Your task to perform on an android device: change the clock display to digital Image 0: 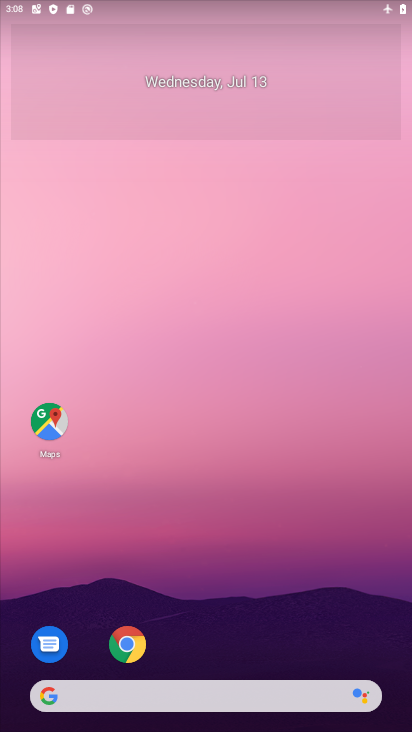
Step 0: drag from (329, 592) to (319, 40)
Your task to perform on an android device: change the clock display to digital Image 1: 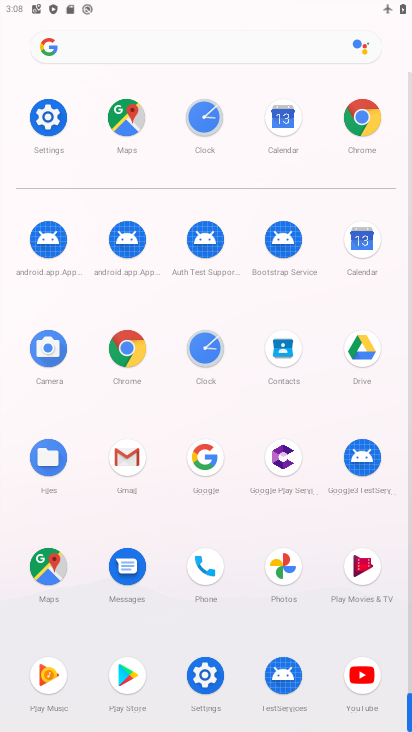
Step 1: click (207, 343)
Your task to perform on an android device: change the clock display to digital Image 2: 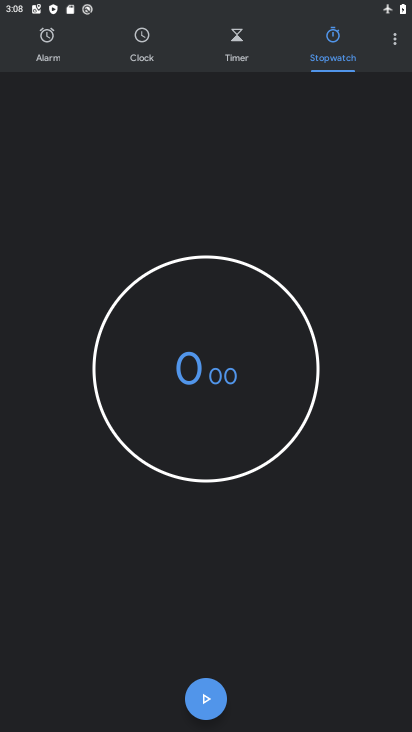
Step 2: click (395, 37)
Your task to perform on an android device: change the clock display to digital Image 3: 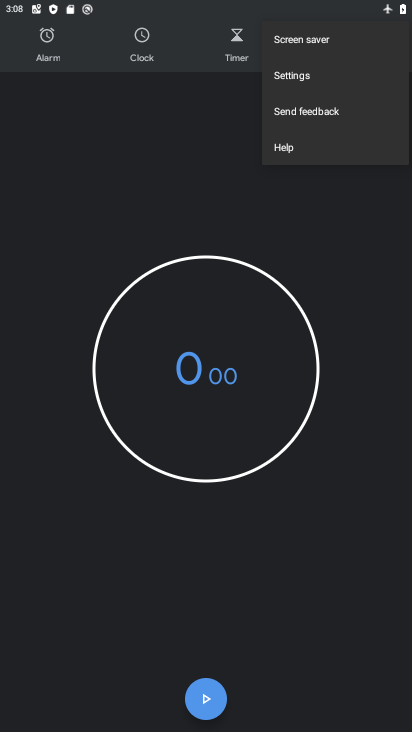
Step 3: click (314, 72)
Your task to perform on an android device: change the clock display to digital Image 4: 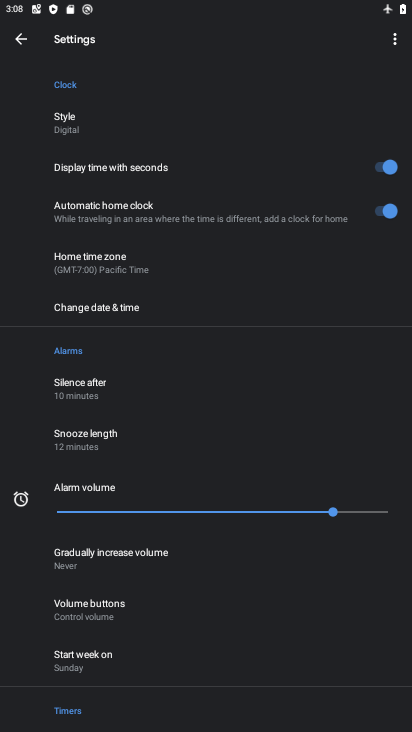
Step 4: task complete